Your task to perform on an android device: Open calendar and show me the second week of next month Image 0: 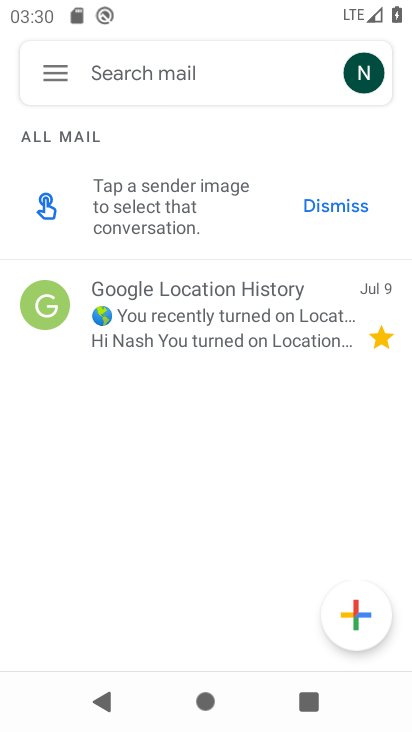
Step 0: press home button
Your task to perform on an android device: Open calendar and show me the second week of next month Image 1: 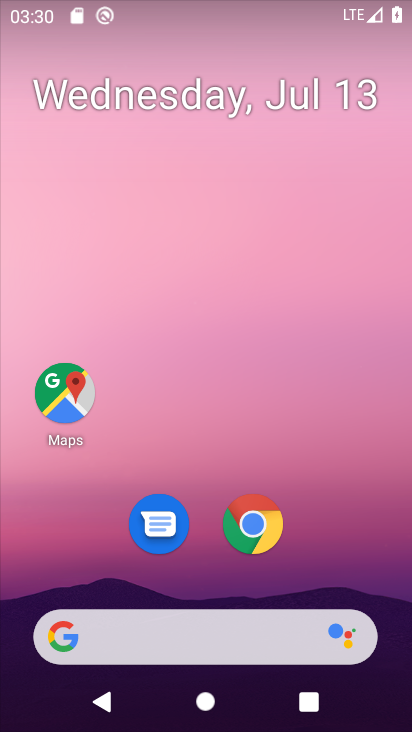
Step 1: drag from (332, 547) to (286, 88)
Your task to perform on an android device: Open calendar and show me the second week of next month Image 2: 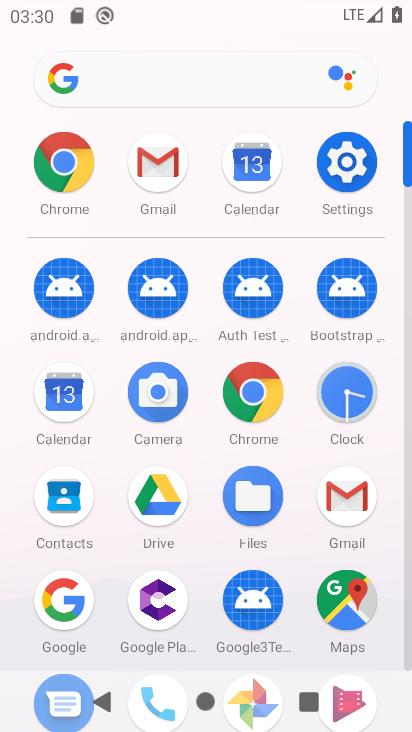
Step 2: click (242, 160)
Your task to perform on an android device: Open calendar and show me the second week of next month Image 3: 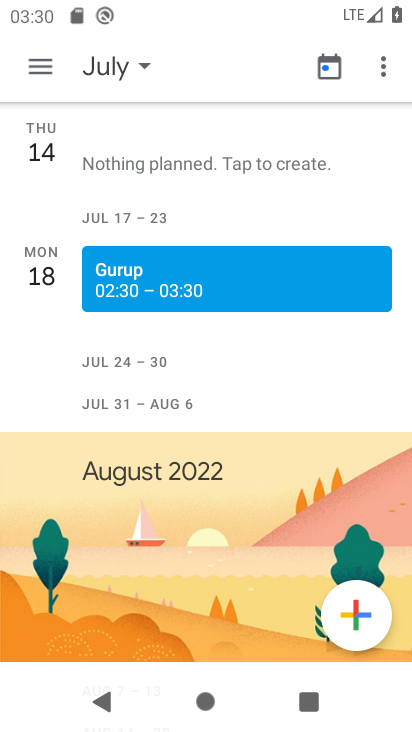
Step 3: click (47, 72)
Your task to perform on an android device: Open calendar and show me the second week of next month Image 4: 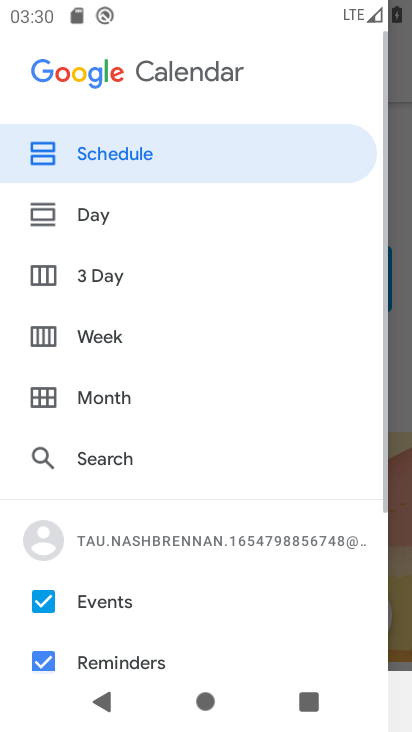
Step 4: click (48, 333)
Your task to perform on an android device: Open calendar and show me the second week of next month Image 5: 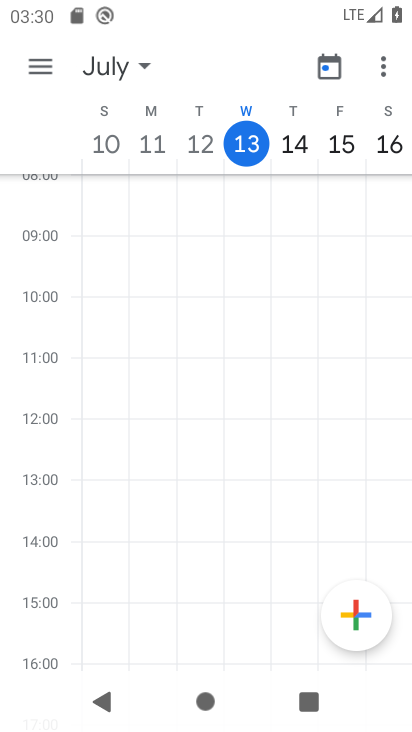
Step 5: task complete